Your task to perform on an android device: clear history in the chrome app Image 0: 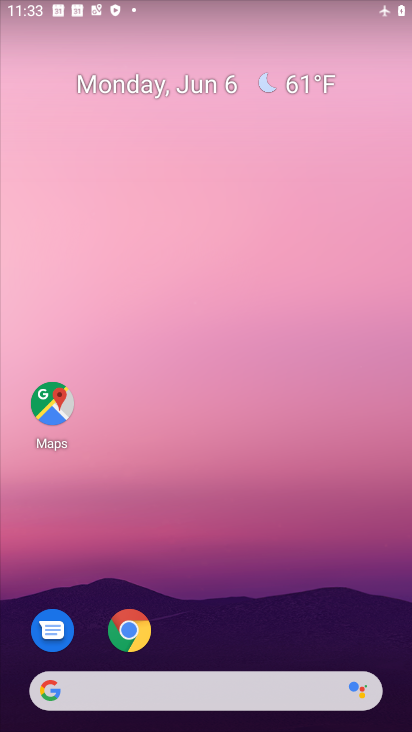
Step 0: drag from (316, 558) to (280, 133)
Your task to perform on an android device: clear history in the chrome app Image 1: 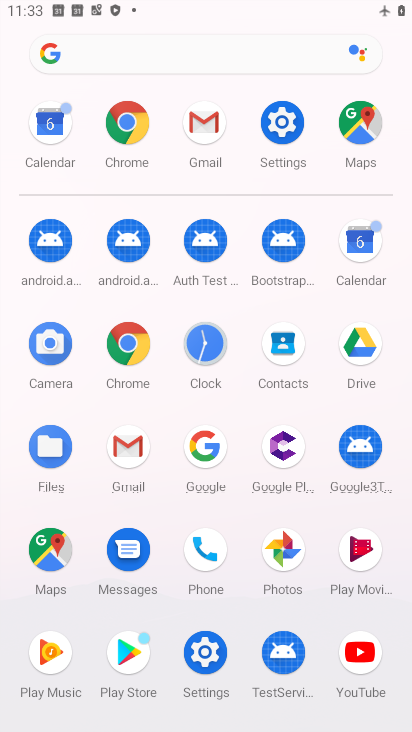
Step 1: click (111, 355)
Your task to perform on an android device: clear history in the chrome app Image 2: 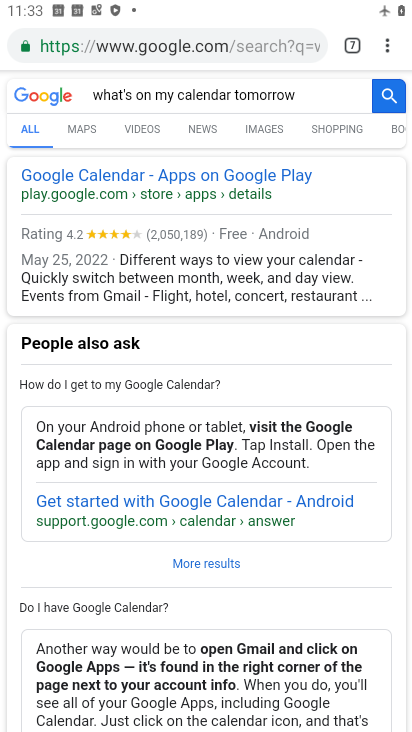
Step 2: drag from (391, 48) to (251, 256)
Your task to perform on an android device: clear history in the chrome app Image 3: 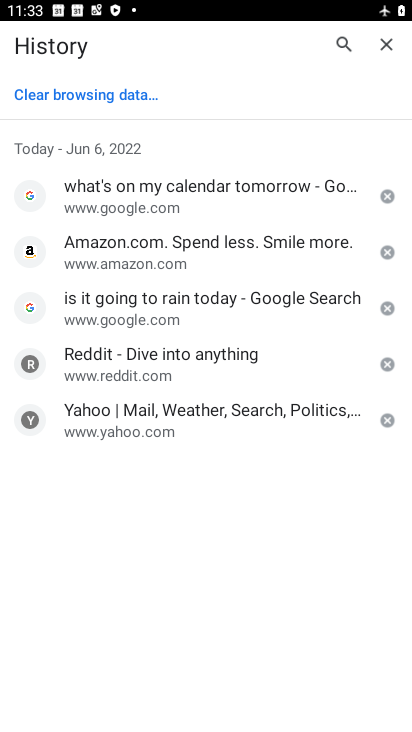
Step 3: click (113, 99)
Your task to perform on an android device: clear history in the chrome app Image 4: 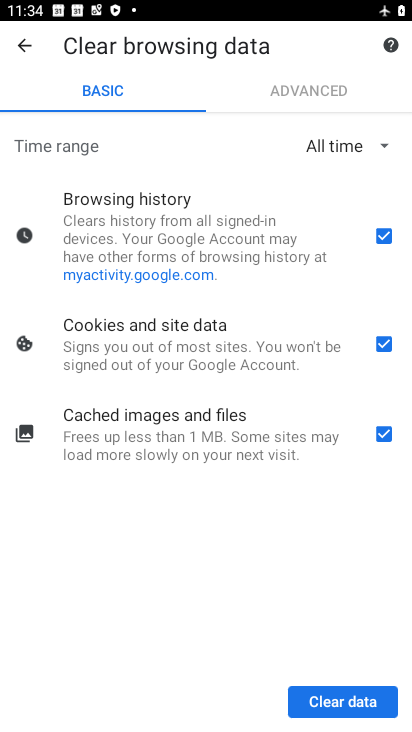
Step 4: click (303, 697)
Your task to perform on an android device: clear history in the chrome app Image 5: 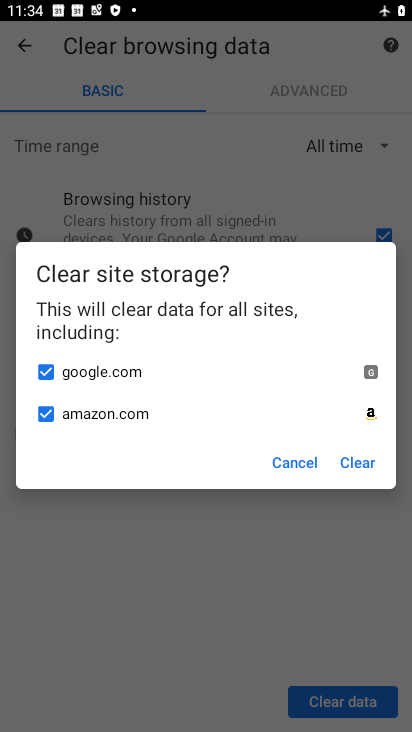
Step 5: click (349, 464)
Your task to perform on an android device: clear history in the chrome app Image 6: 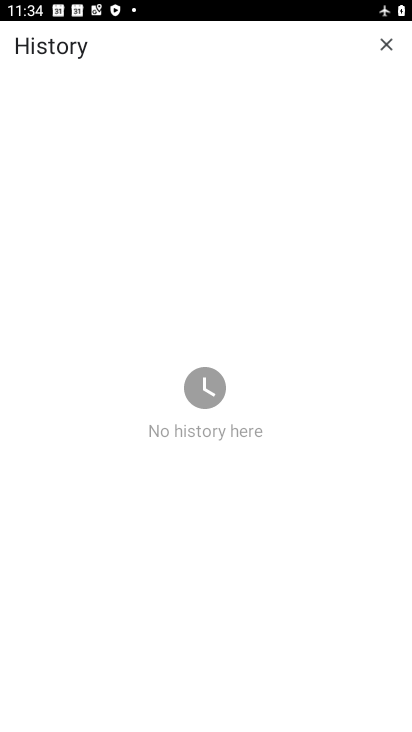
Step 6: task complete